Your task to perform on an android device: Open CNN.com Image 0: 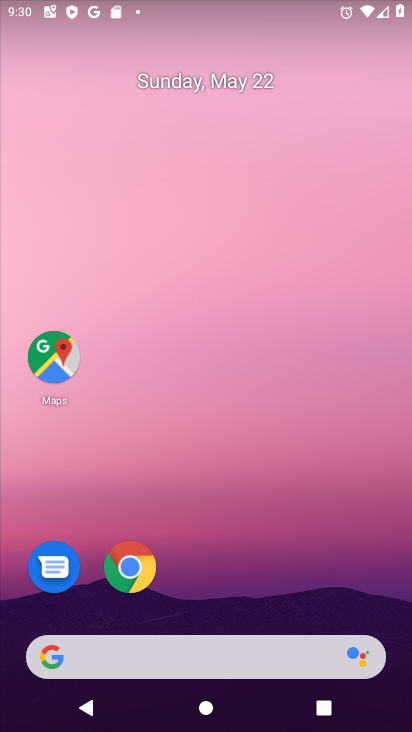
Step 0: click (138, 651)
Your task to perform on an android device: Open CNN.com Image 1: 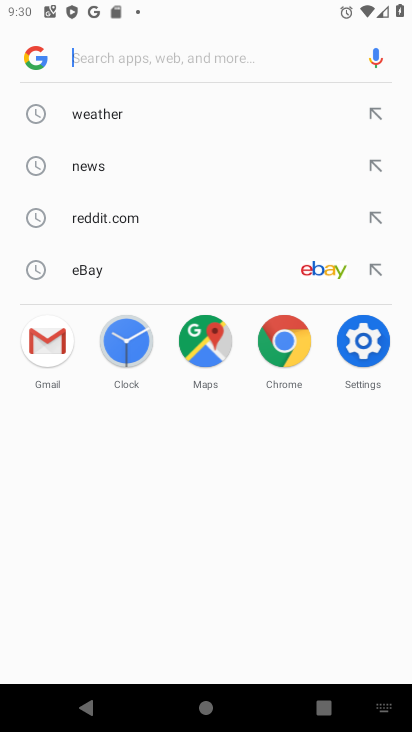
Step 1: type "CNN.com"
Your task to perform on an android device: Open CNN.com Image 2: 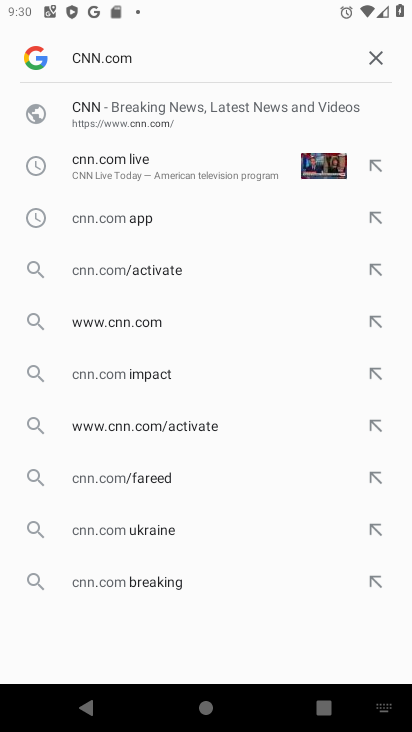
Step 2: click (127, 211)
Your task to perform on an android device: Open CNN.com Image 3: 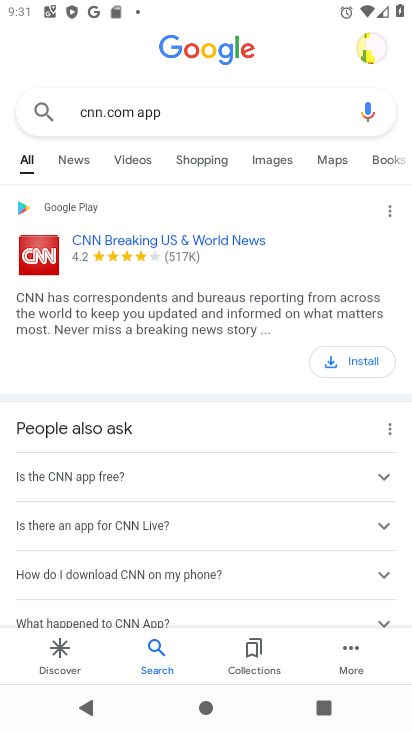
Step 3: task complete